Your task to perform on an android device: Open internet settings Image 0: 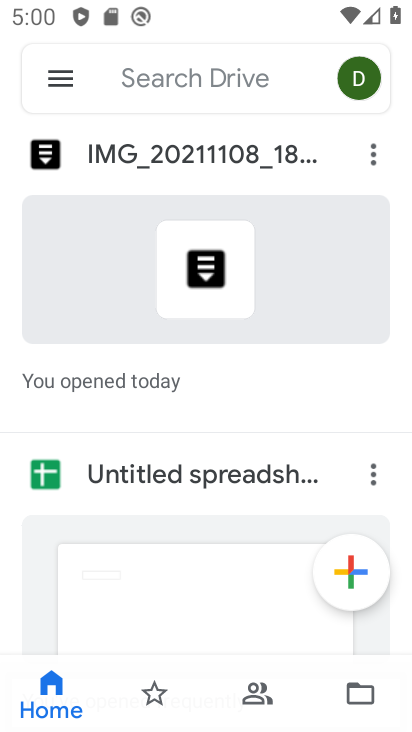
Step 0: press back button
Your task to perform on an android device: Open internet settings Image 1: 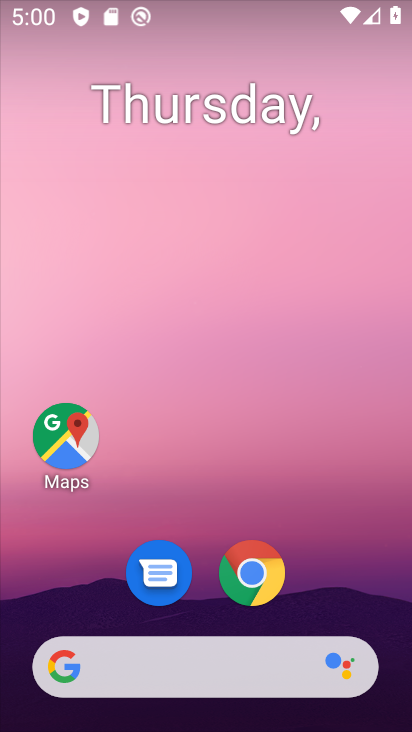
Step 1: drag from (367, 579) to (262, 59)
Your task to perform on an android device: Open internet settings Image 2: 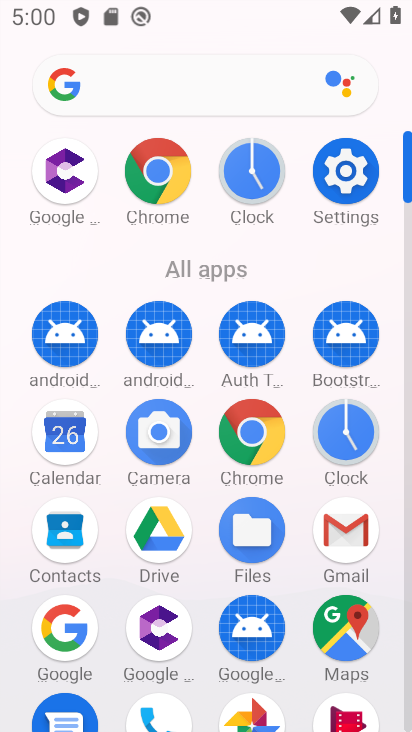
Step 2: drag from (5, 554) to (15, 263)
Your task to perform on an android device: Open internet settings Image 3: 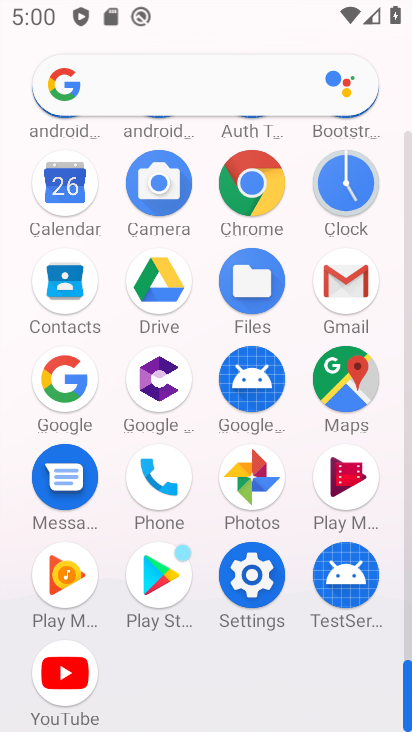
Step 3: click (256, 571)
Your task to perform on an android device: Open internet settings Image 4: 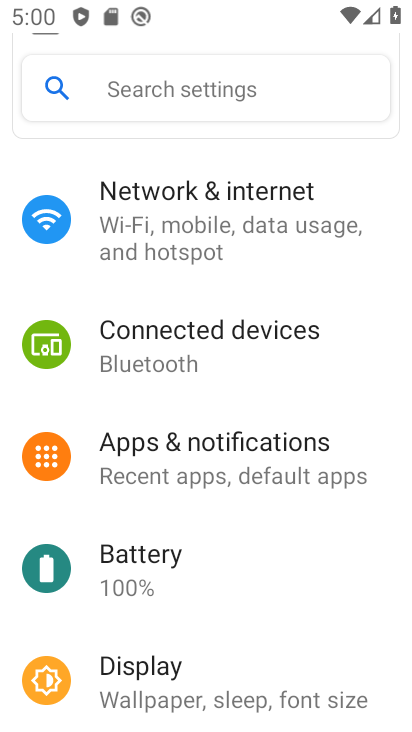
Step 4: click (254, 227)
Your task to perform on an android device: Open internet settings Image 5: 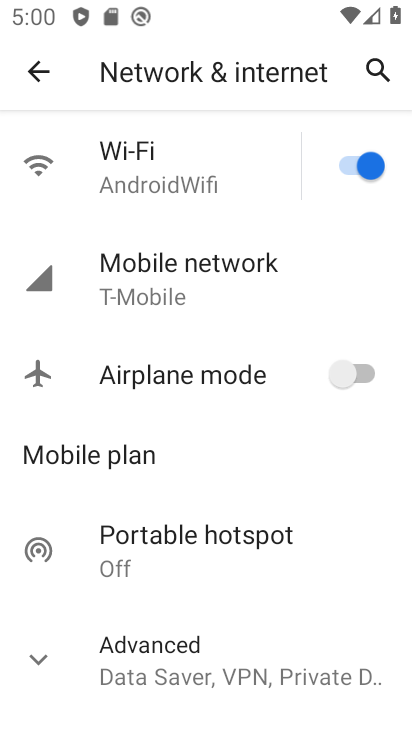
Step 5: click (47, 654)
Your task to perform on an android device: Open internet settings Image 6: 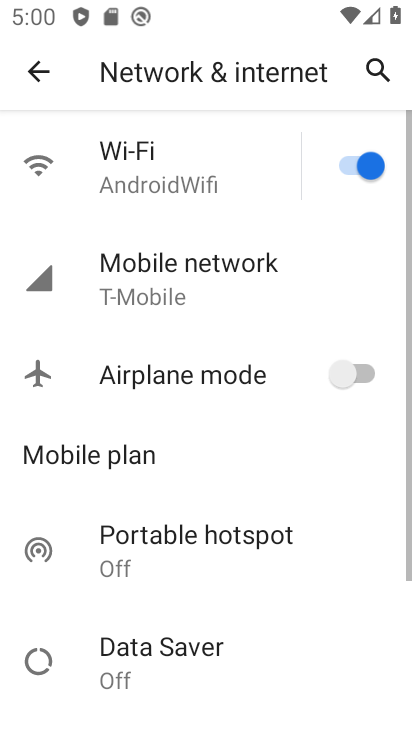
Step 6: drag from (171, 581) to (202, 212)
Your task to perform on an android device: Open internet settings Image 7: 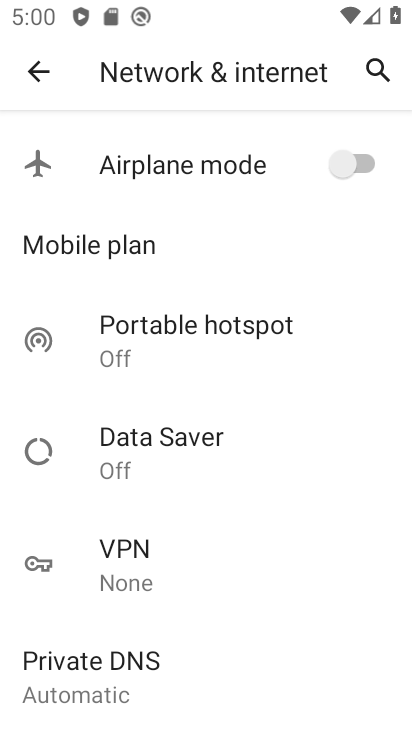
Step 7: drag from (214, 272) to (212, 636)
Your task to perform on an android device: Open internet settings Image 8: 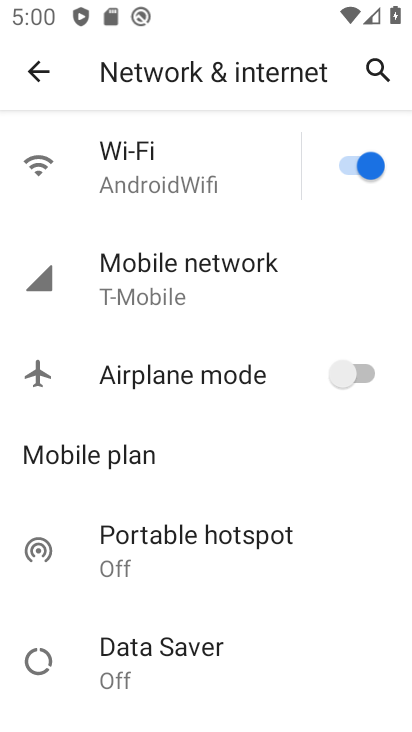
Step 8: drag from (191, 244) to (201, 622)
Your task to perform on an android device: Open internet settings Image 9: 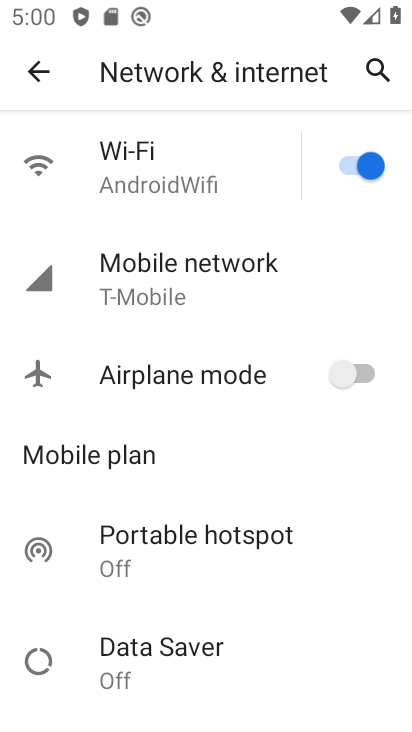
Step 9: click (149, 159)
Your task to perform on an android device: Open internet settings Image 10: 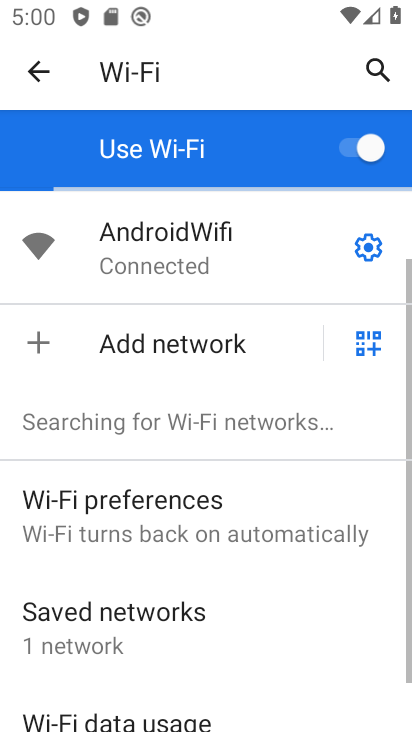
Step 10: click (42, 71)
Your task to perform on an android device: Open internet settings Image 11: 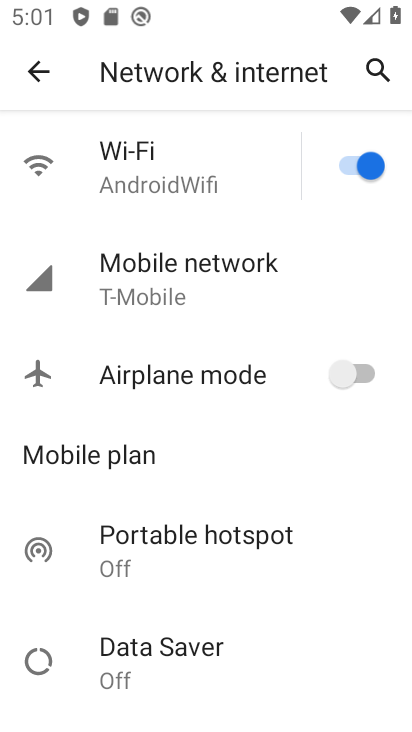
Step 11: task complete